Your task to perform on an android device: Open calendar and show me the third week of next month Image 0: 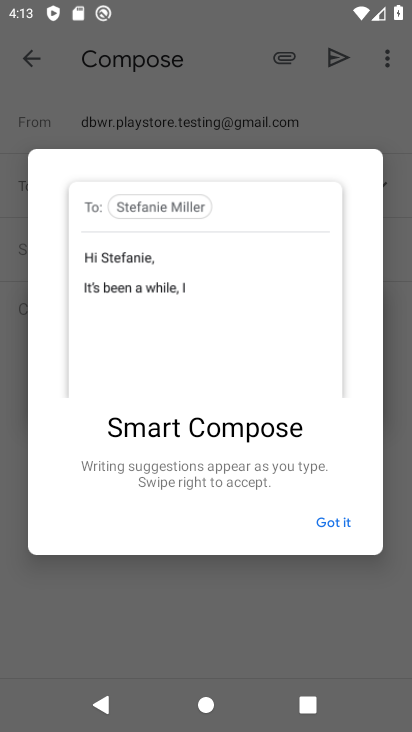
Step 0: click (335, 519)
Your task to perform on an android device: Open calendar and show me the third week of next month Image 1: 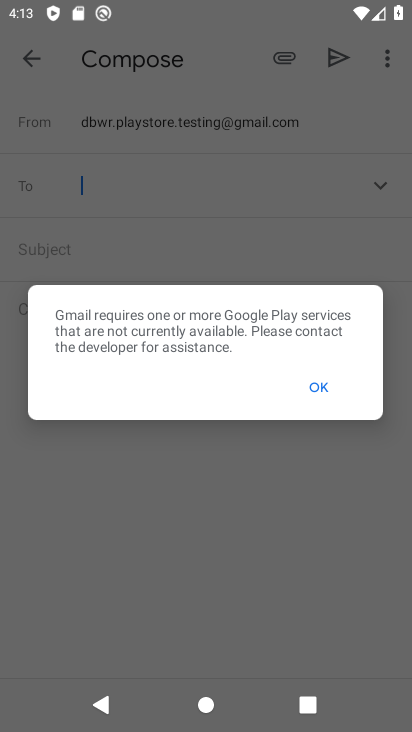
Step 1: click (324, 383)
Your task to perform on an android device: Open calendar and show me the third week of next month Image 2: 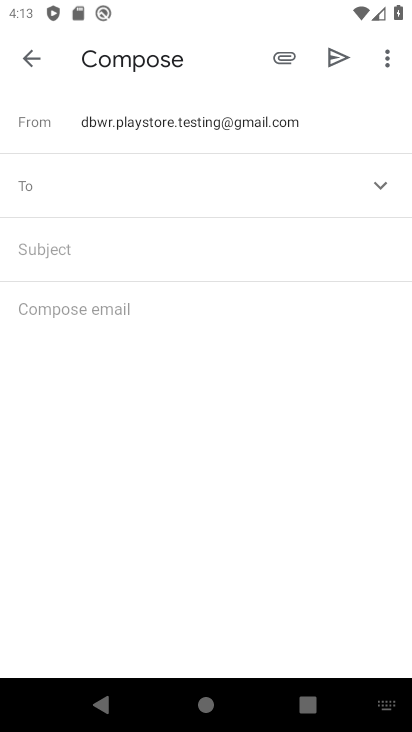
Step 2: press home button
Your task to perform on an android device: Open calendar and show me the third week of next month Image 3: 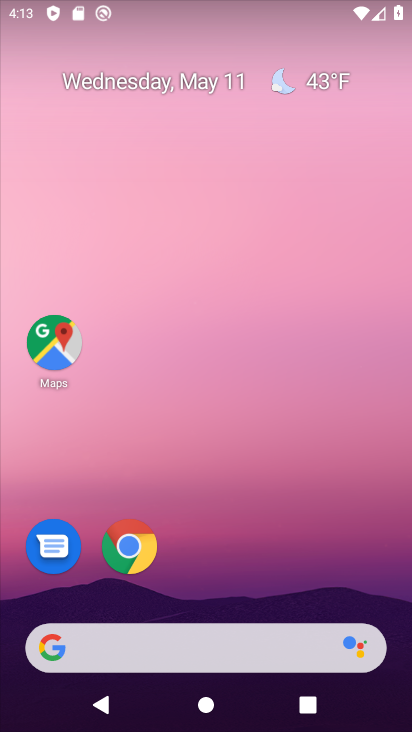
Step 3: drag from (169, 622) to (121, 250)
Your task to perform on an android device: Open calendar and show me the third week of next month Image 4: 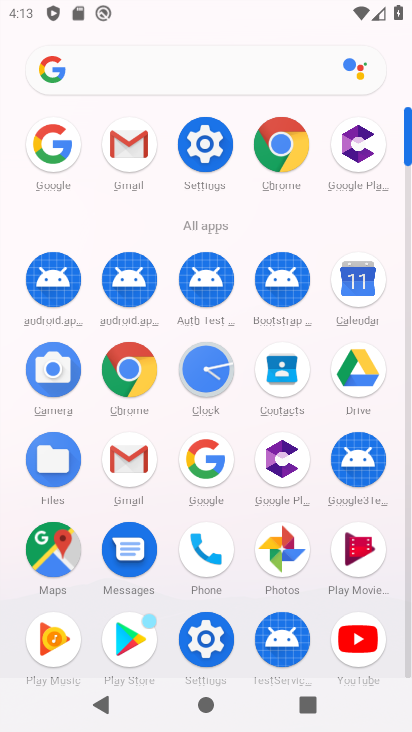
Step 4: click (355, 292)
Your task to perform on an android device: Open calendar and show me the third week of next month Image 5: 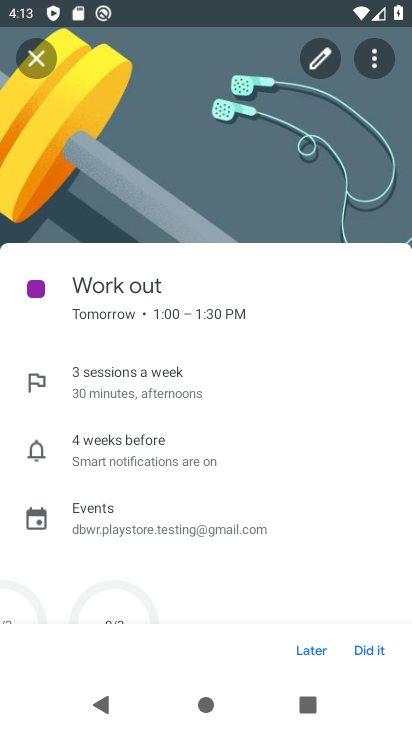
Step 5: press home button
Your task to perform on an android device: Open calendar and show me the third week of next month Image 6: 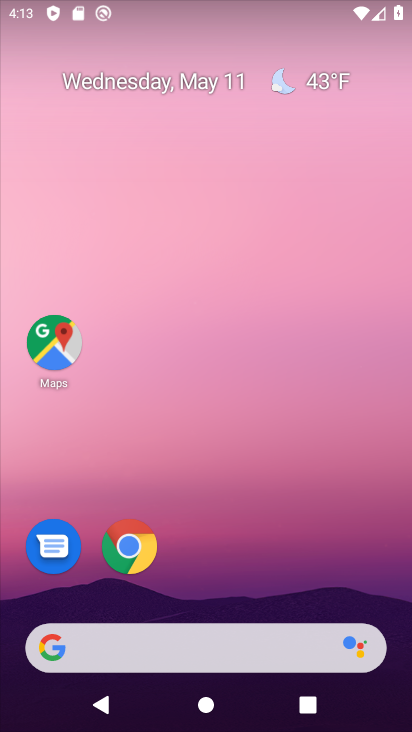
Step 6: drag from (245, 624) to (245, 242)
Your task to perform on an android device: Open calendar and show me the third week of next month Image 7: 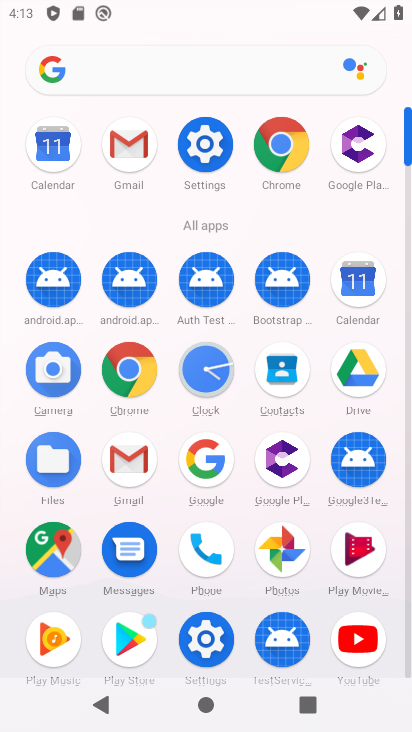
Step 7: click (352, 270)
Your task to perform on an android device: Open calendar and show me the third week of next month Image 8: 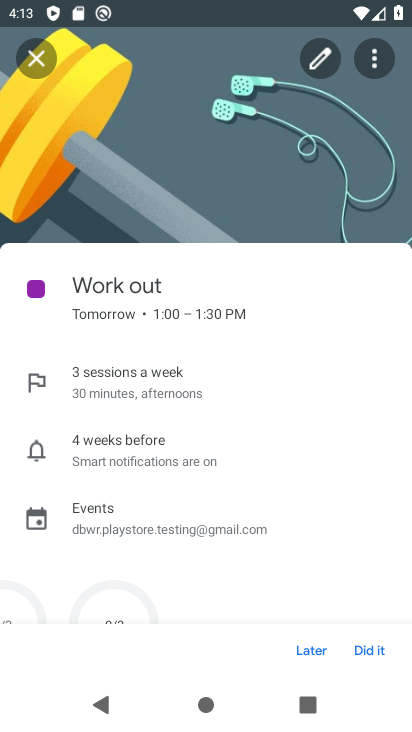
Step 8: click (321, 649)
Your task to perform on an android device: Open calendar and show me the third week of next month Image 9: 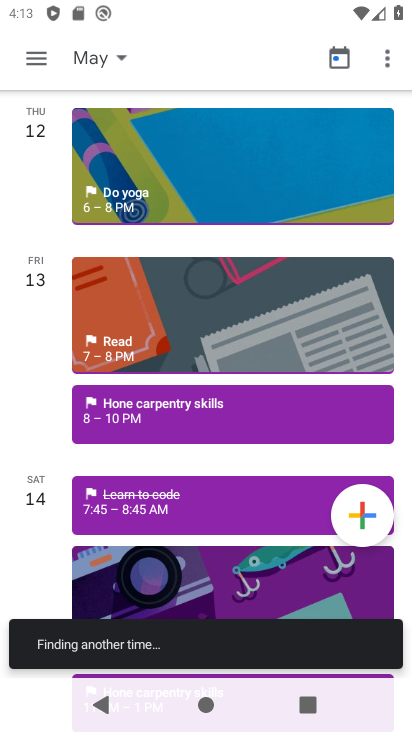
Step 9: click (91, 54)
Your task to perform on an android device: Open calendar and show me the third week of next month Image 10: 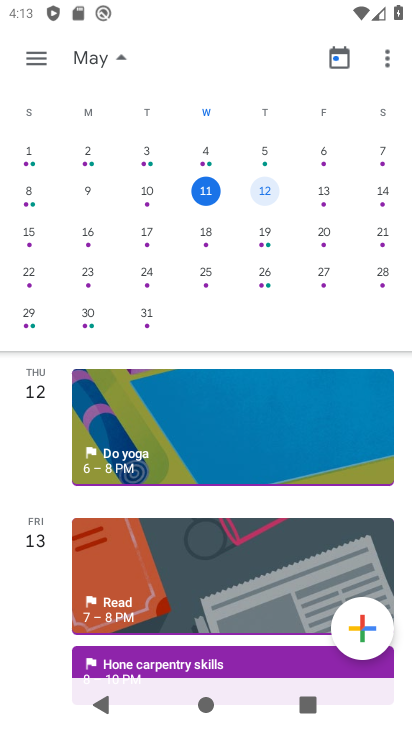
Step 10: drag from (373, 231) to (0, 250)
Your task to perform on an android device: Open calendar and show me the third week of next month Image 11: 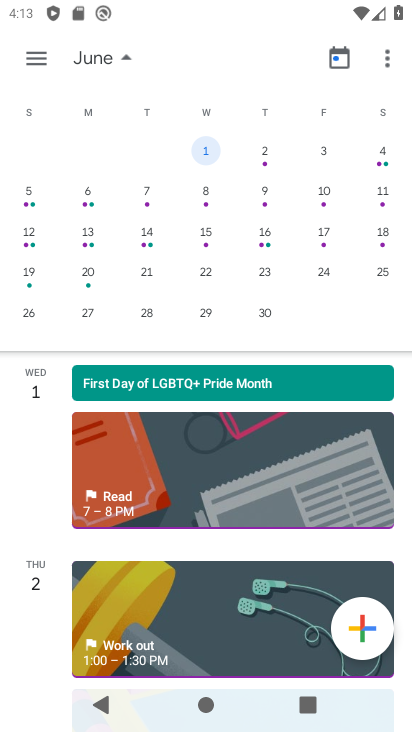
Step 11: click (22, 241)
Your task to perform on an android device: Open calendar and show me the third week of next month Image 12: 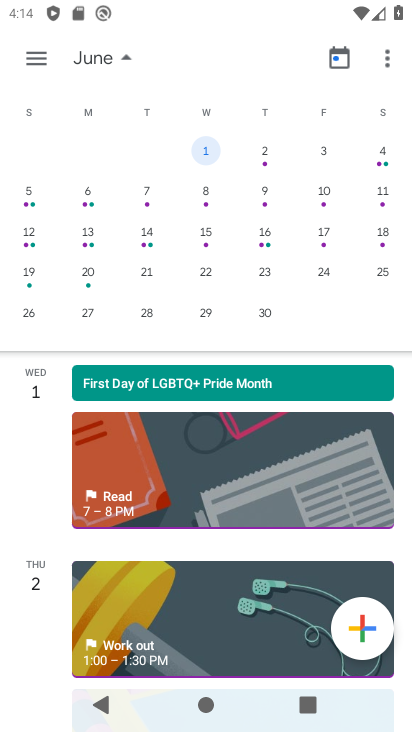
Step 12: task complete